Your task to perform on an android device: Open settings Image 0: 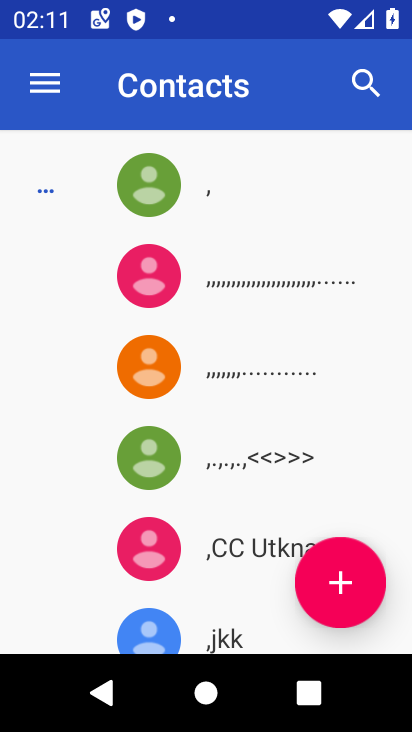
Step 0: press home button
Your task to perform on an android device: Open settings Image 1: 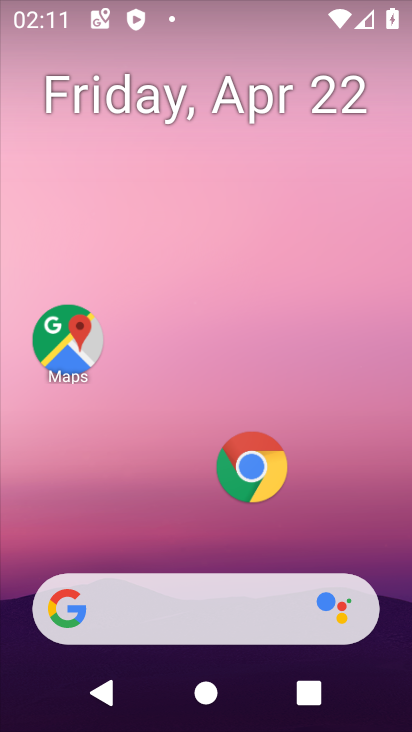
Step 1: drag from (219, 548) to (280, 218)
Your task to perform on an android device: Open settings Image 2: 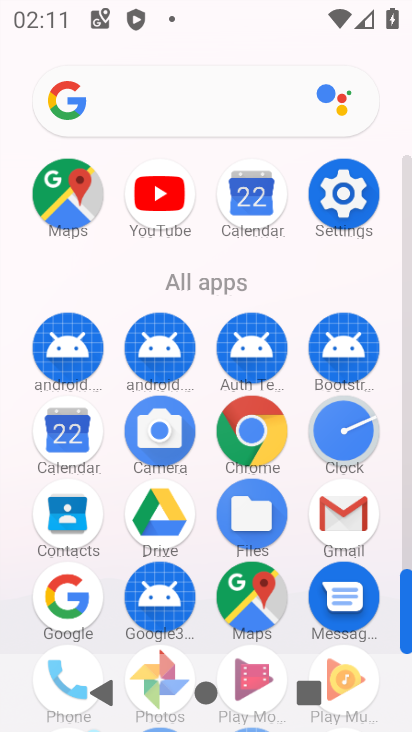
Step 2: click (353, 184)
Your task to perform on an android device: Open settings Image 3: 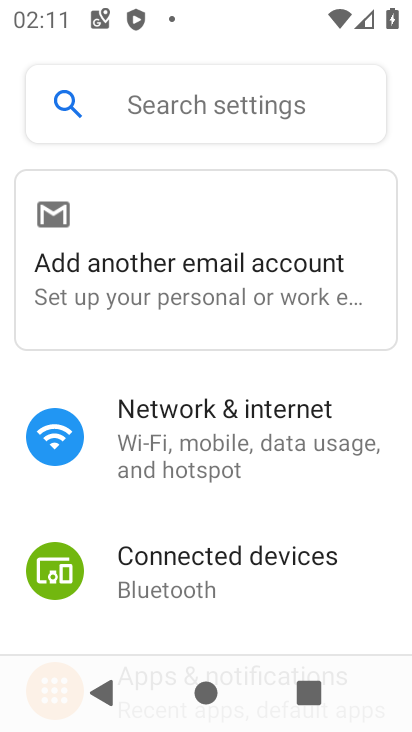
Step 3: task complete